Your task to perform on an android device: Go to Google maps Image 0: 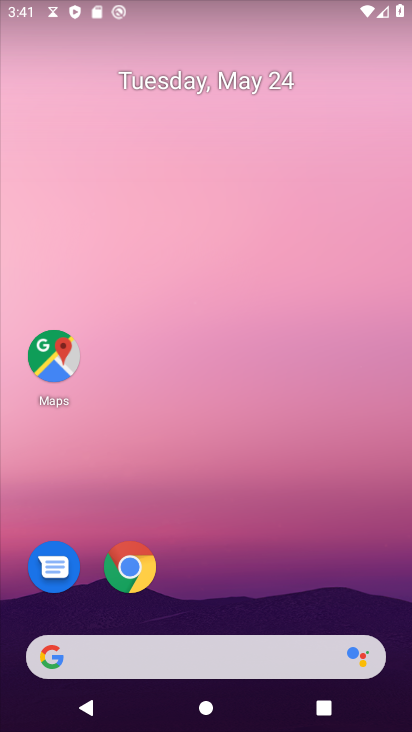
Step 0: click (60, 359)
Your task to perform on an android device: Go to Google maps Image 1: 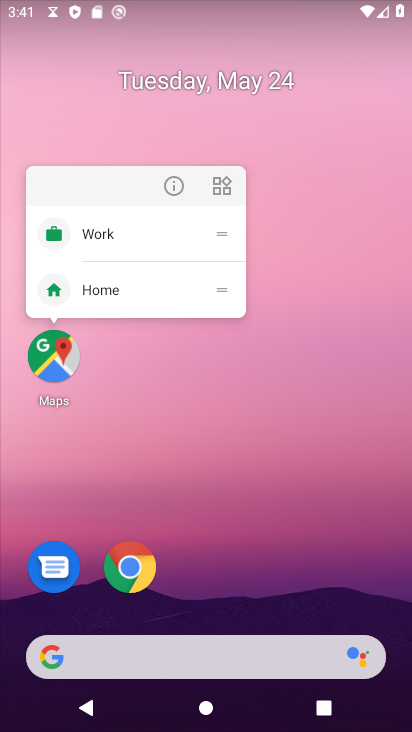
Step 1: click (59, 366)
Your task to perform on an android device: Go to Google maps Image 2: 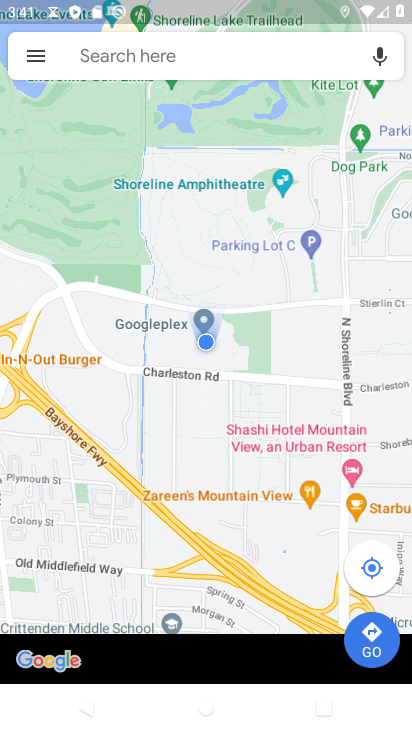
Step 2: click (66, 363)
Your task to perform on an android device: Go to Google maps Image 3: 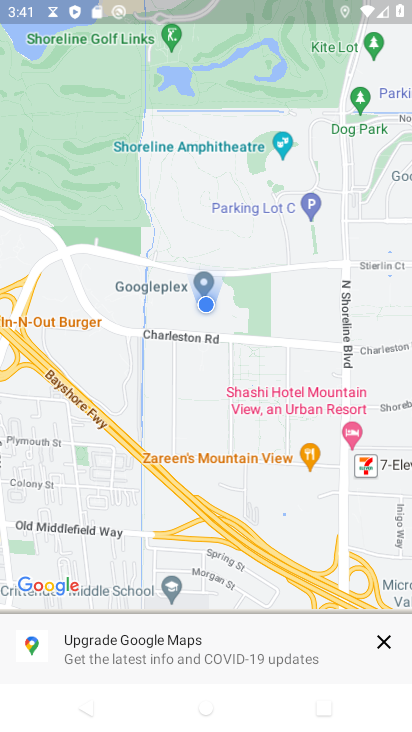
Step 3: click (390, 630)
Your task to perform on an android device: Go to Google maps Image 4: 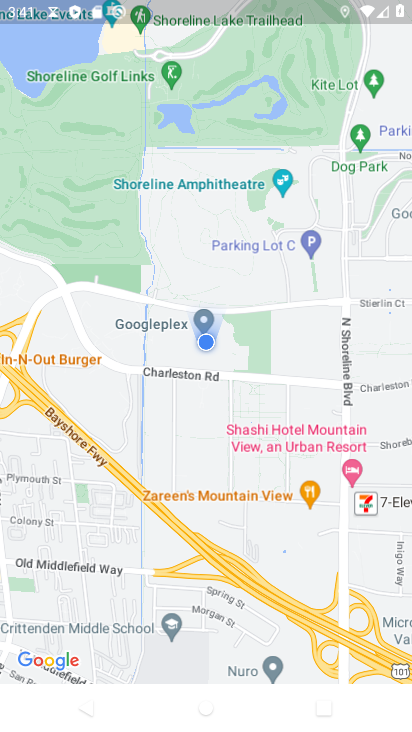
Step 4: task complete